Your task to perform on an android device: Go to Android settings Image 0: 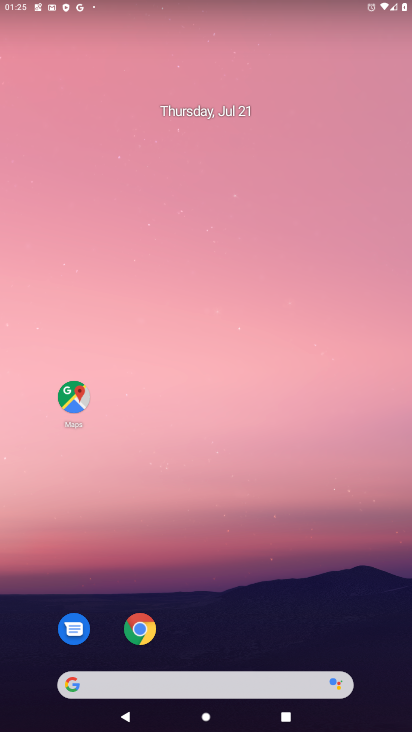
Step 0: drag from (179, 458) to (165, 107)
Your task to perform on an android device: Go to Android settings Image 1: 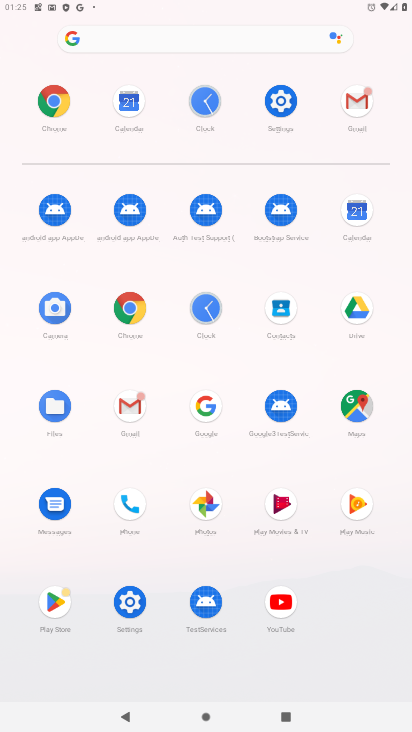
Step 1: click (277, 100)
Your task to perform on an android device: Go to Android settings Image 2: 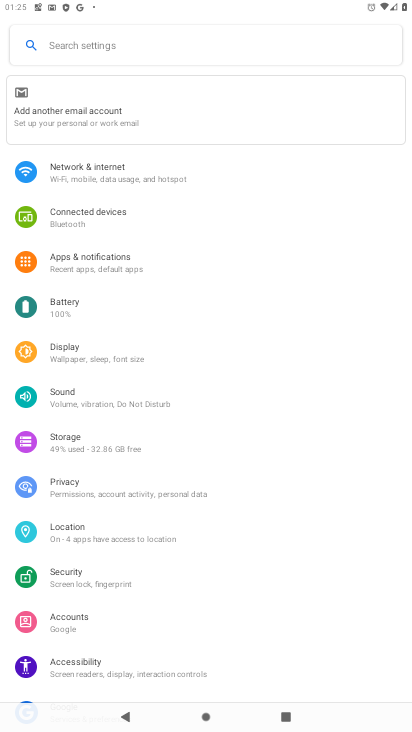
Step 2: task complete